Your task to perform on an android device: turn off location Image 0: 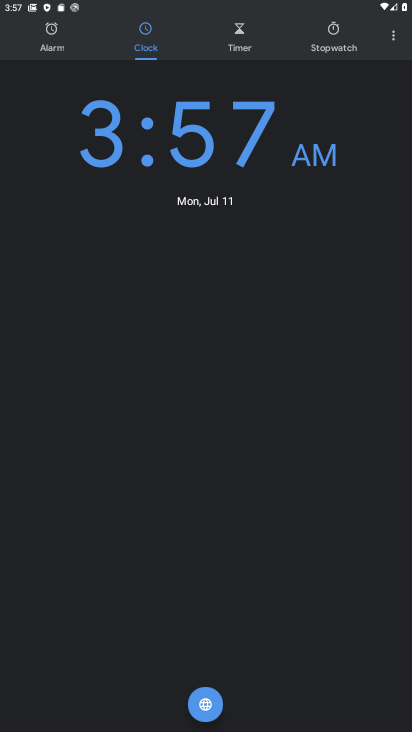
Step 0: drag from (191, 5) to (193, 608)
Your task to perform on an android device: turn off location Image 1: 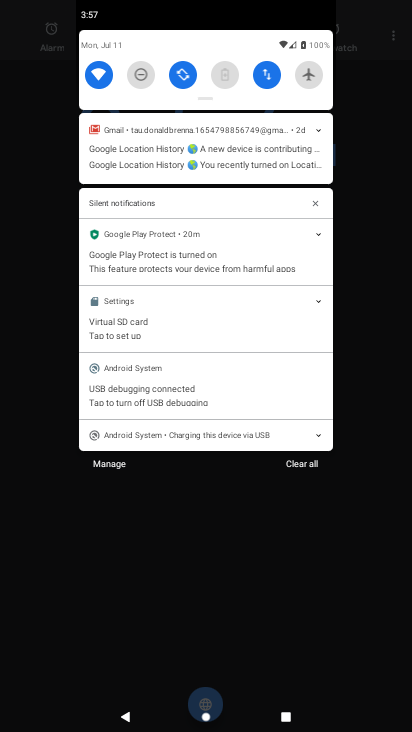
Step 1: drag from (249, 51) to (203, 664)
Your task to perform on an android device: turn off location Image 2: 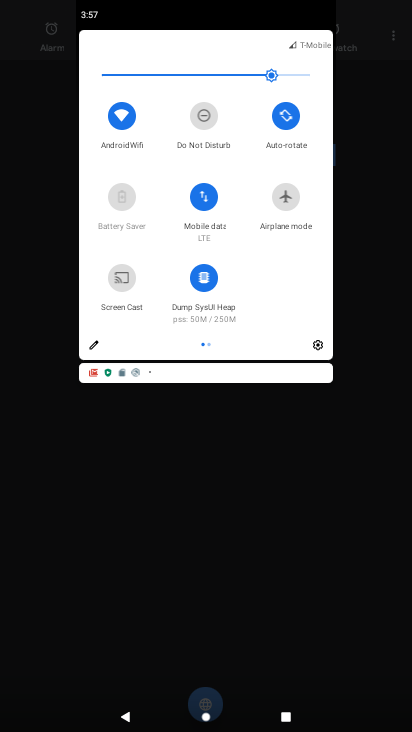
Step 2: click (313, 347)
Your task to perform on an android device: turn off location Image 3: 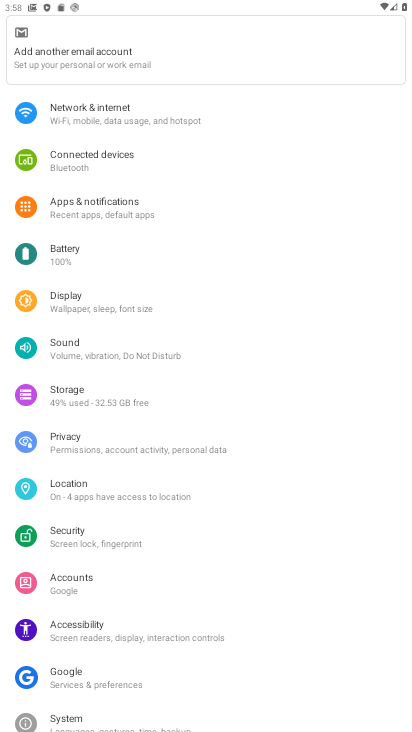
Step 3: click (121, 484)
Your task to perform on an android device: turn off location Image 4: 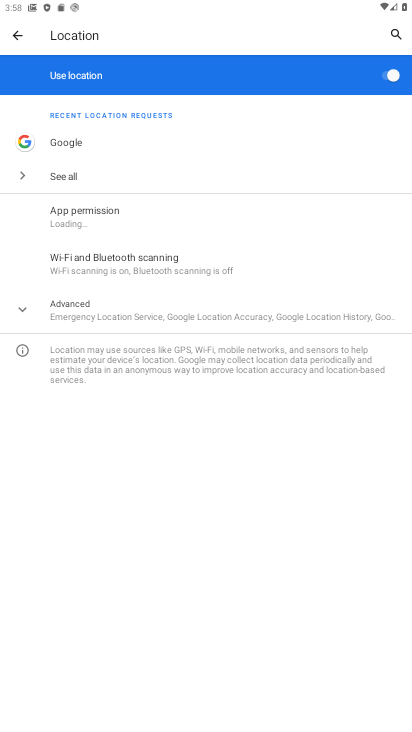
Step 4: click (387, 83)
Your task to perform on an android device: turn off location Image 5: 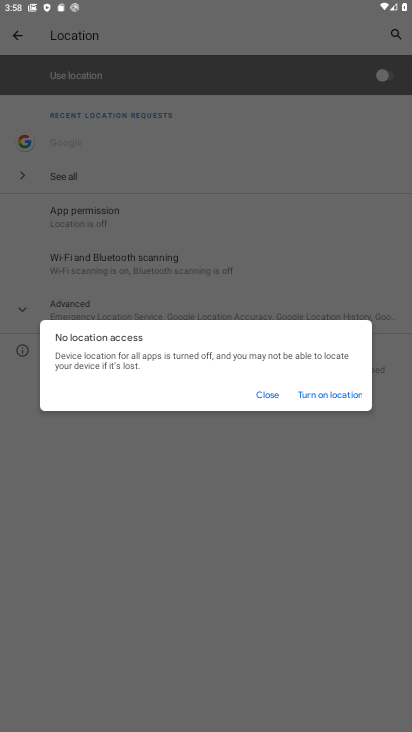
Step 5: task complete